Your task to perform on an android device: Go to accessibility settings Image 0: 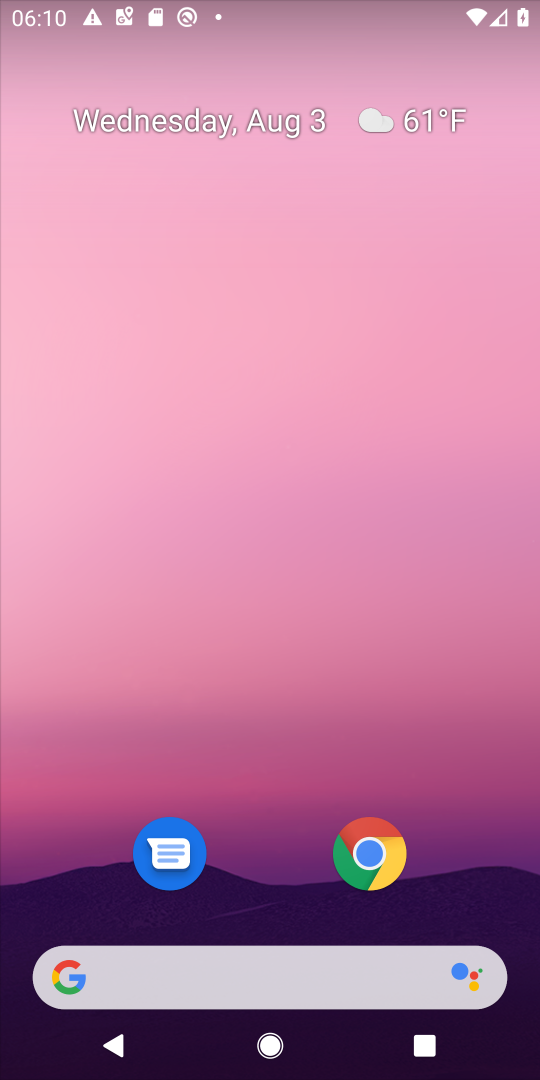
Step 0: drag from (287, 869) to (282, 66)
Your task to perform on an android device: Go to accessibility settings Image 1: 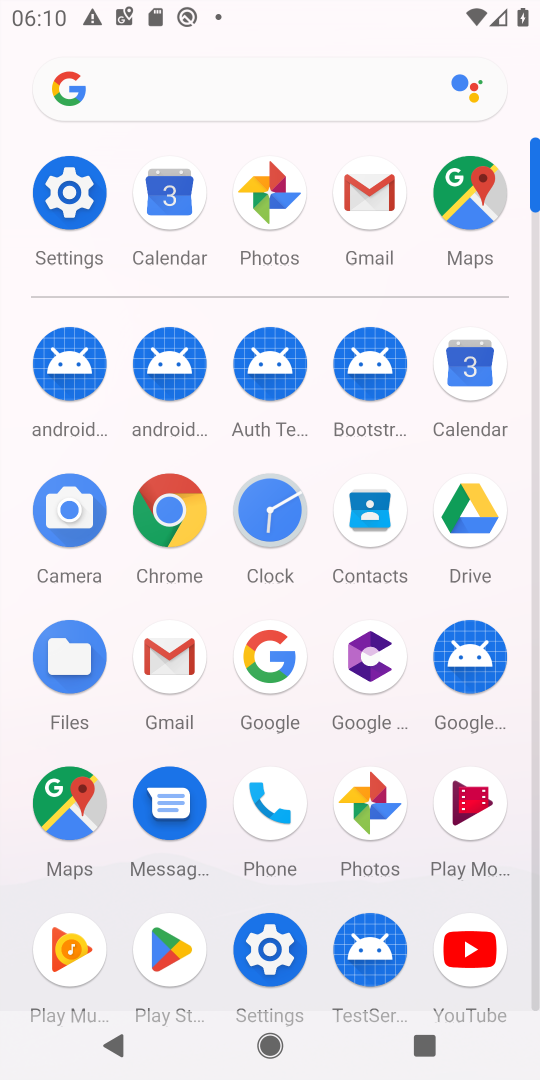
Step 1: click (65, 200)
Your task to perform on an android device: Go to accessibility settings Image 2: 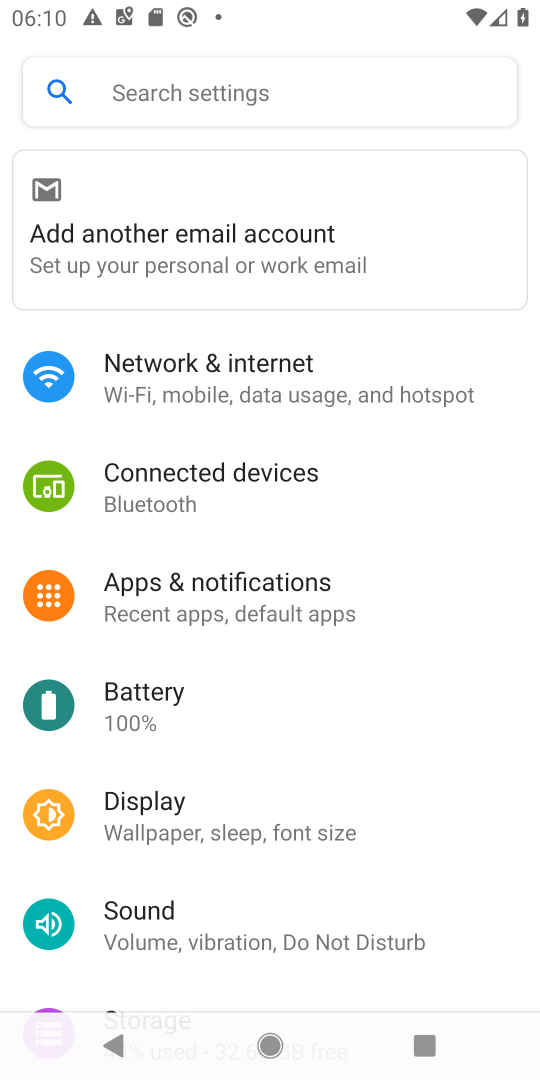
Step 2: drag from (216, 899) to (192, 500)
Your task to perform on an android device: Go to accessibility settings Image 3: 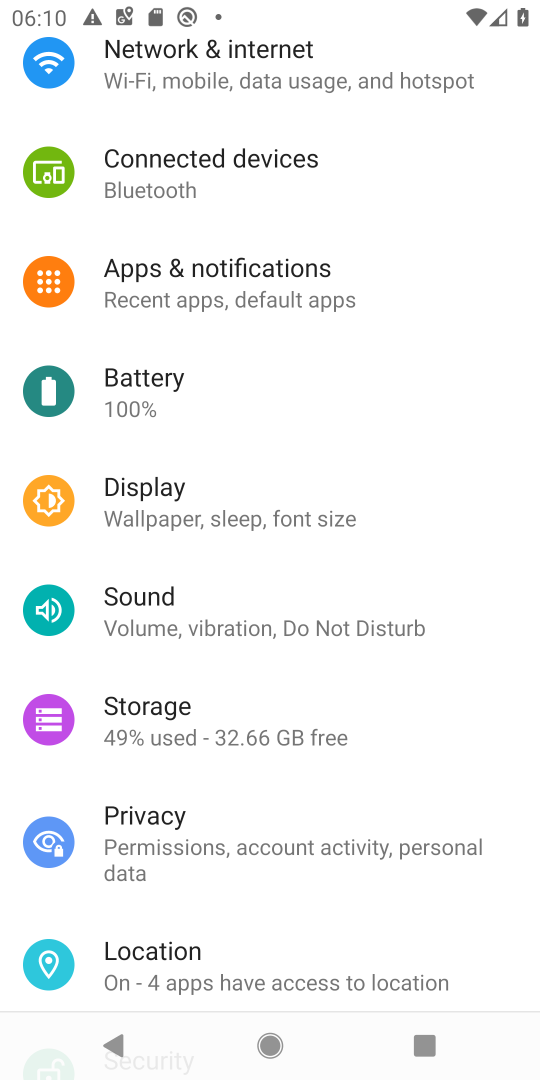
Step 3: drag from (182, 879) to (171, 374)
Your task to perform on an android device: Go to accessibility settings Image 4: 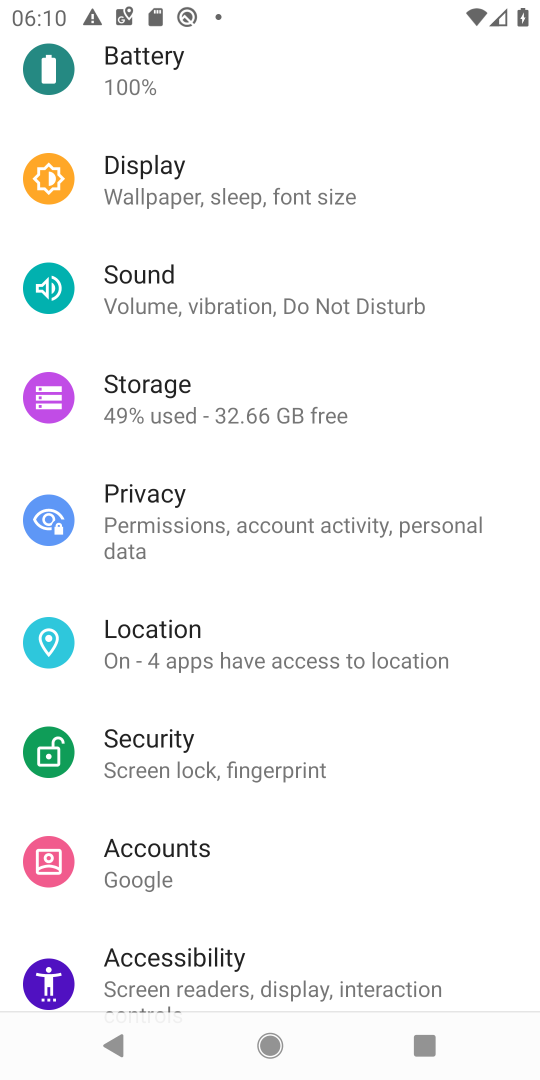
Step 4: click (194, 958)
Your task to perform on an android device: Go to accessibility settings Image 5: 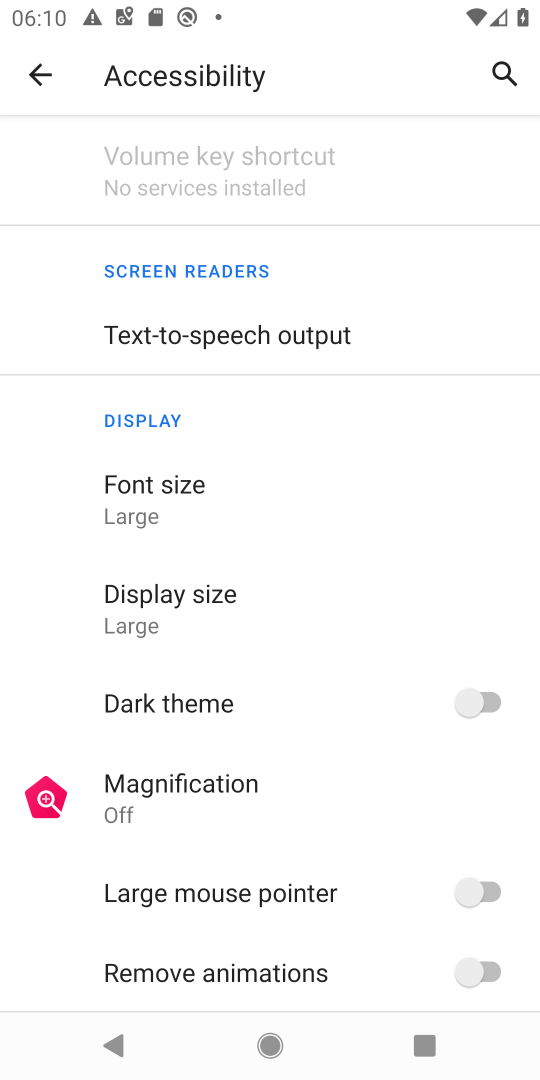
Step 5: task complete